Your task to perform on an android device: turn off wifi Image 0: 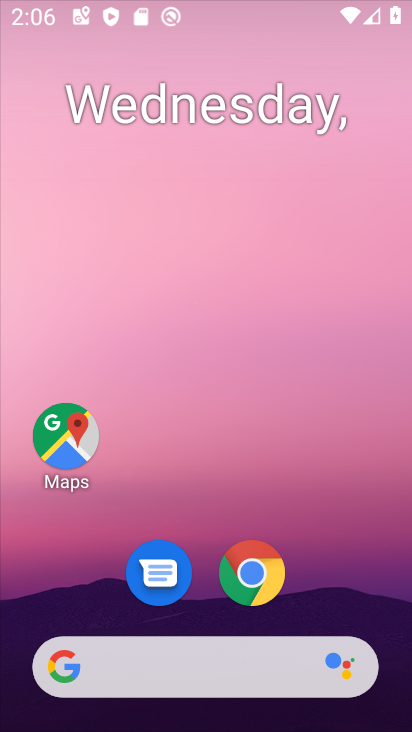
Step 0: drag from (205, 566) to (209, 115)
Your task to perform on an android device: turn off wifi Image 1: 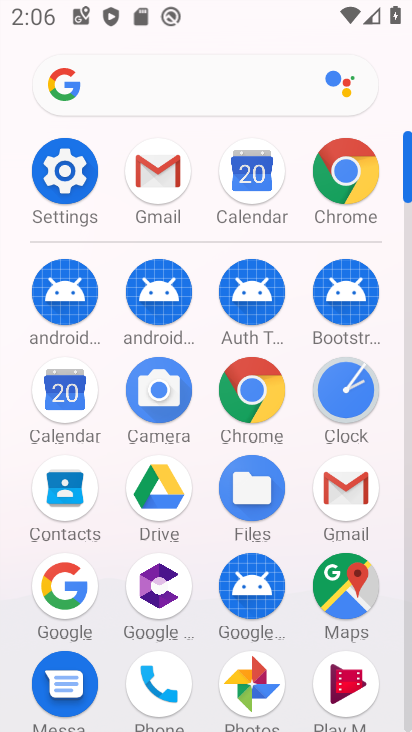
Step 1: click (59, 167)
Your task to perform on an android device: turn off wifi Image 2: 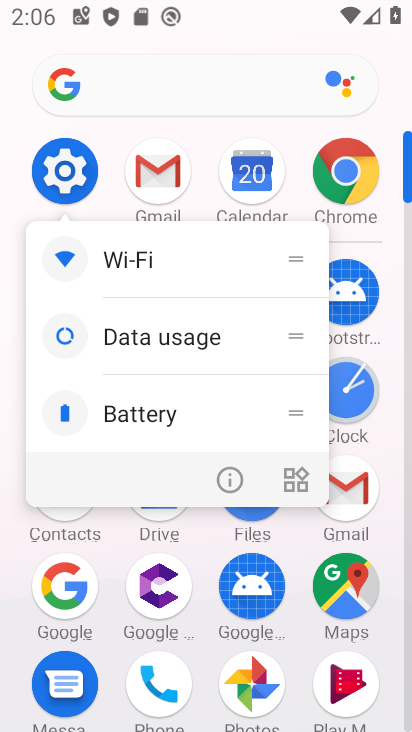
Step 2: click (66, 157)
Your task to perform on an android device: turn off wifi Image 3: 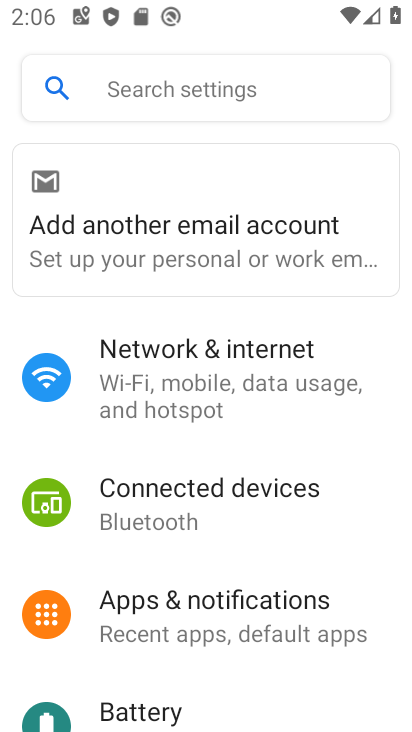
Step 3: click (207, 380)
Your task to perform on an android device: turn off wifi Image 4: 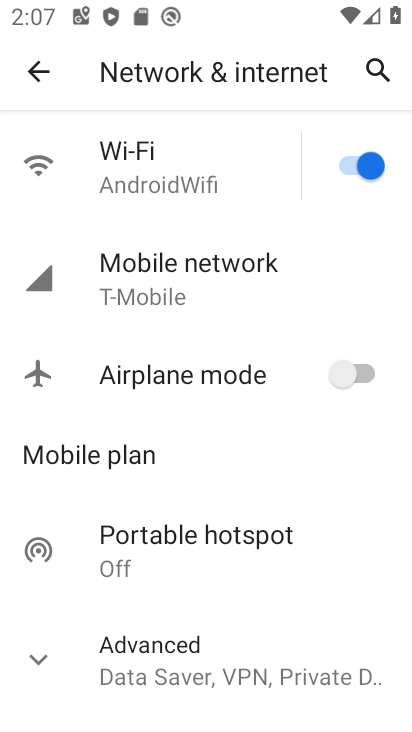
Step 4: click (367, 157)
Your task to perform on an android device: turn off wifi Image 5: 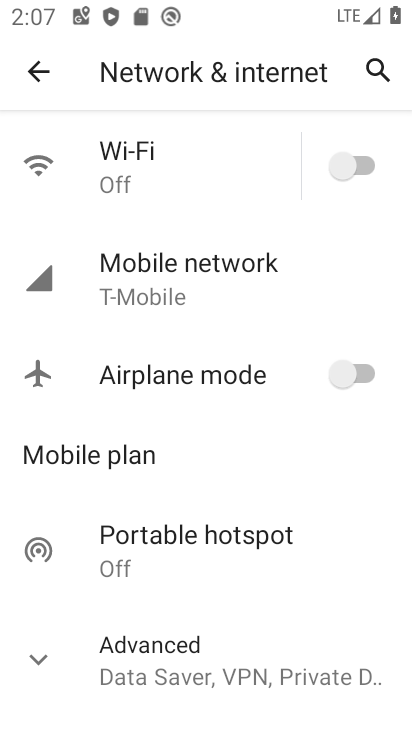
Step 5: task complete